Your task to perform on an android device: check battery use Image 0: 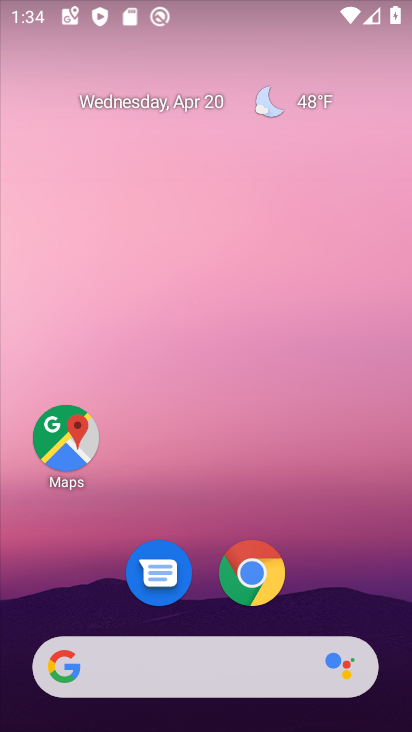
Step 0: drag from (137, 658) to (322, 88)
Your task to perform on an android device: check battery use Image 1: 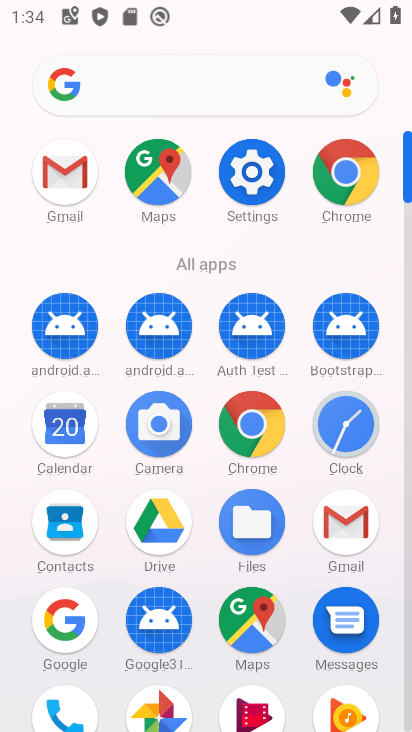
Step 1: click (258, 182)
Your task to perform on an android device: check battery use Image 2: 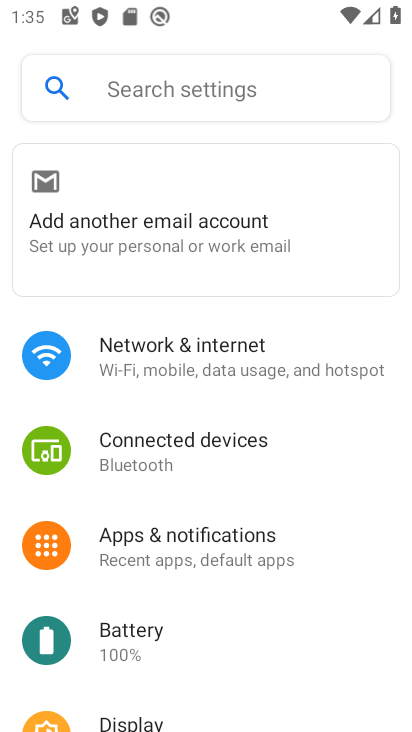
Step 2: click (142, 635)
Your task to perform on an android device: check battery use Image 3: 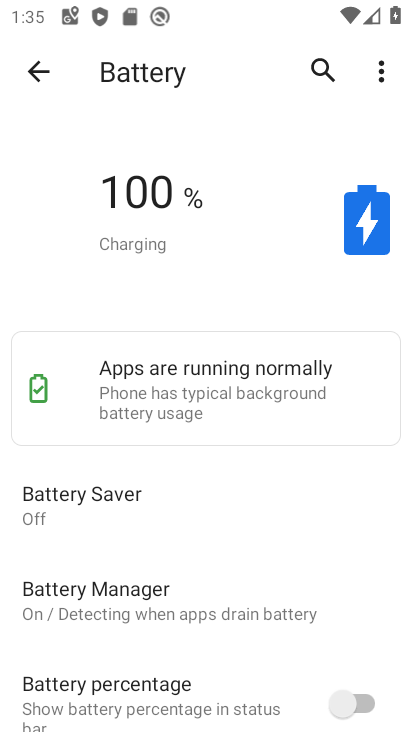
Step 3: click (378, 73)
Your task to perform on an android device: check battery use Image 4: 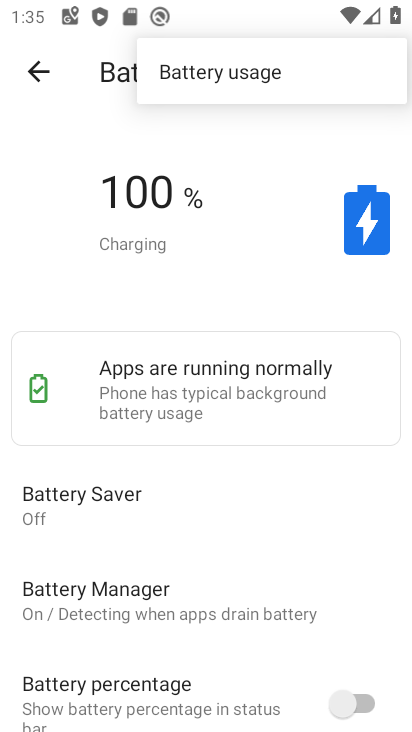
Step 4: click (257, 73)
Your task to perform on an android device: check battery use Image 5: 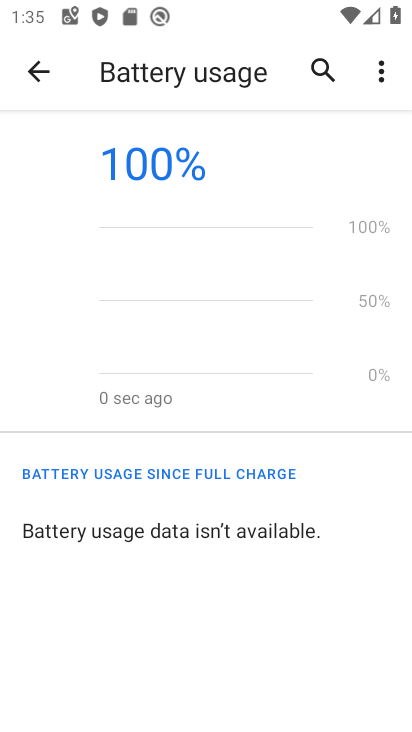
Step 5: task complete